Your task to perform on an android device: turn on improve location accuracy Image 0: 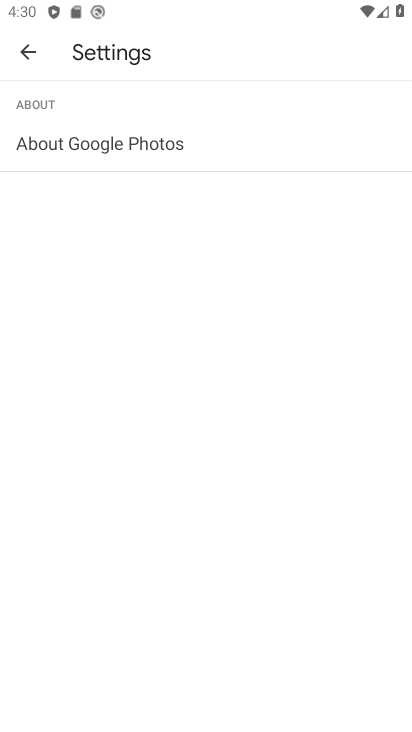
Step 0: press home button
Your task to perform on an android device: turn on improve location accuracy Image 1: 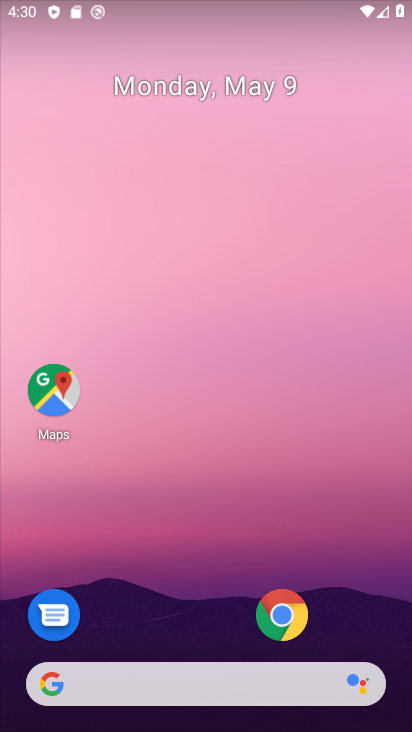
Step 1: drag from (249, 656) to (256, 262)
Your task to perform on an android device: turn on improve location accuracy Image 2: 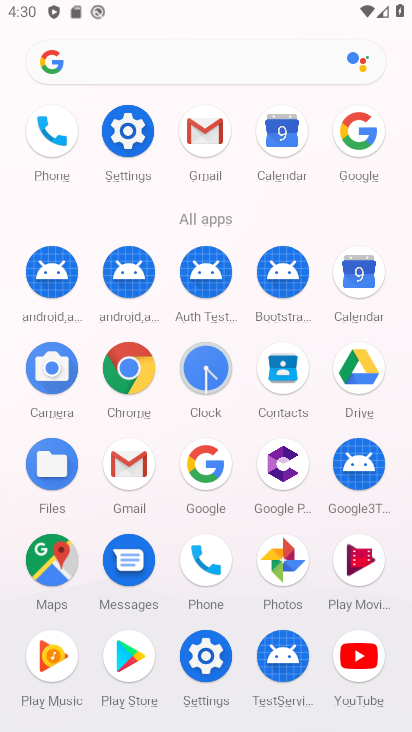
Step 2: click (206, 662)
Your task to perform on an android device: turn on improve location accuracy Image 3: 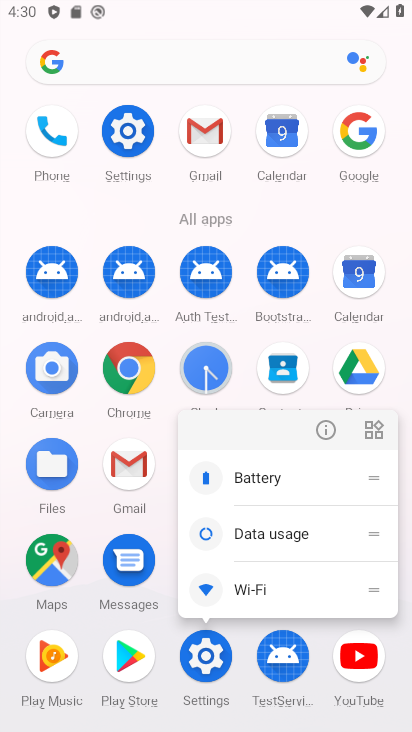
Step 3: click (200, 655)
Your task to perform on an android device: turn on improve location accuracy Image 4: 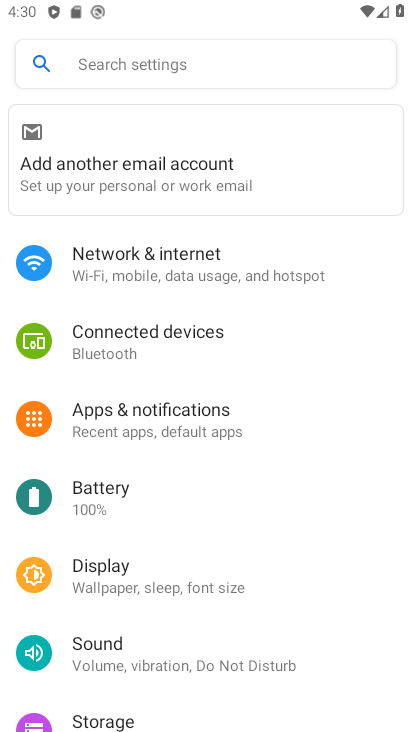
Step 4: drag from (192, 683) to (192, 285)
Your task to perform on an android device: turn on improve location accuracy Image 5: 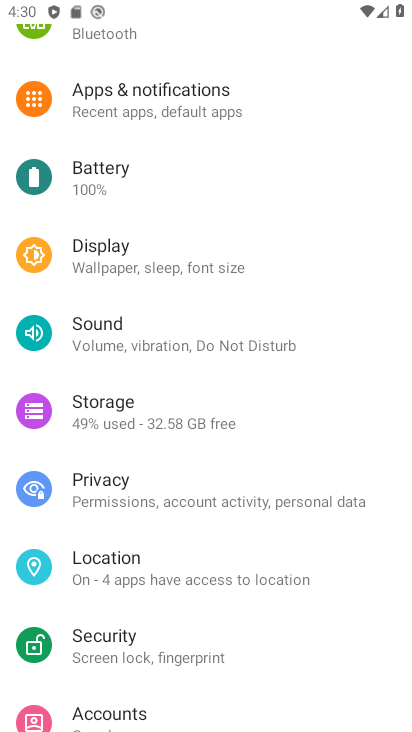
Step 5: click (104, 559)
Your task to perform on an android device: turn on improve location accuracy Image 6: 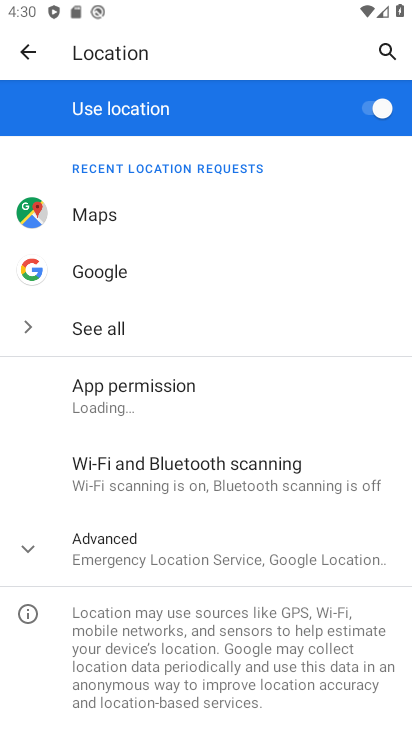
Step 6: click (134, 552)
Your task to perform on an android device: turn on improve location accuracy Image 7: 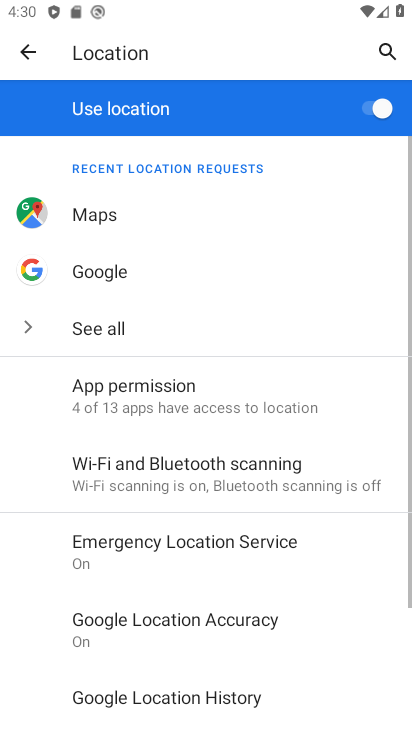
Step 7: drag from (169, 689) to (147, 392)
Your task to perform on an android device: turn on improve location accuracy Image 8: 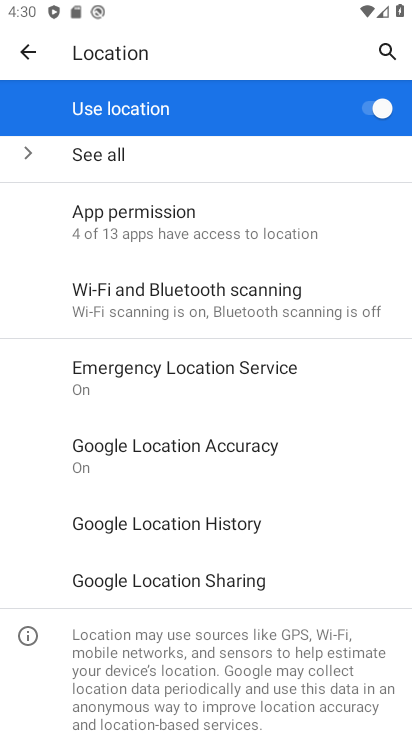
Step 8: click (217, 445)
Your task to perform on an android device: turn on improve location accuracy Image 9: 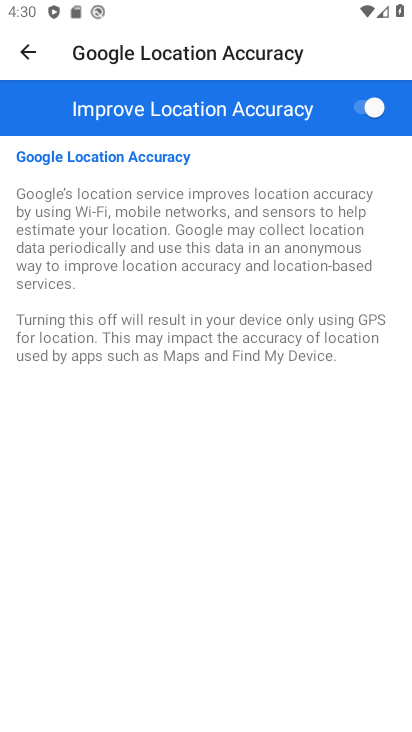
Step 9: task complete